Your task to perform on an android device: remove spam from my inbox in the gmail app Image 0: 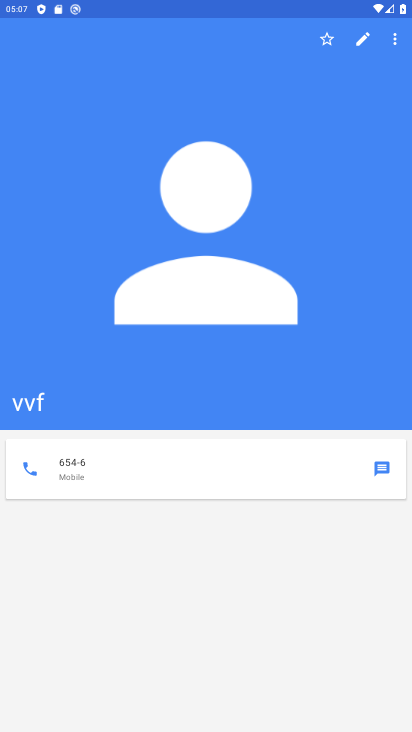
Step 0: press back button
Your task to perform on an android device: remove spam from my inbox in the gmail app Image 1: 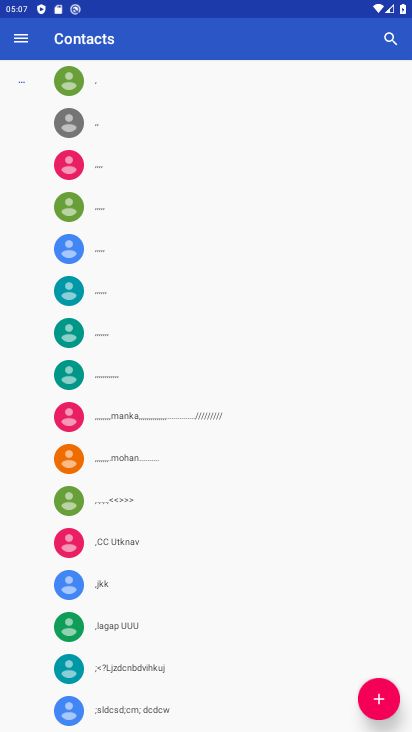
Step 1: press back button
Your task to perform on an android device: remove spam from my inbox in the gmail app Image 2: 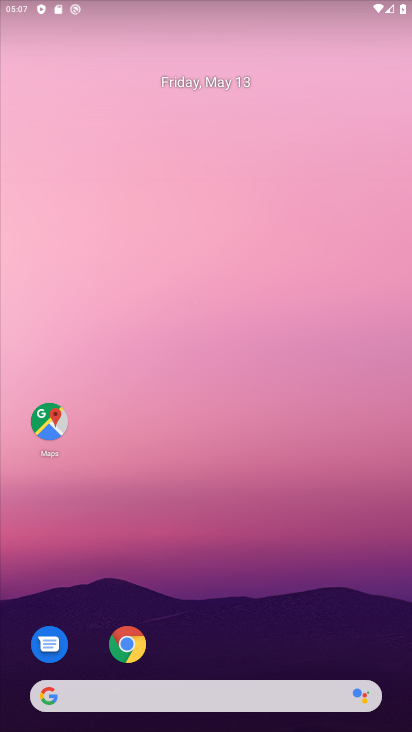
Step 2: drag from (252, 594) to (307, 21)
Your task to perform on an android device: remove spam from my inbox in the gmail app Image 3: 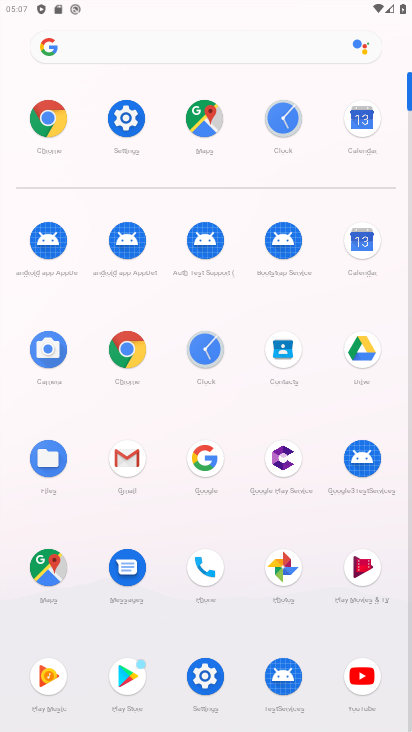
Step 3: click (118, 459)
Your task to perform on an android device: remove spam from my inbox in the gmail app Image 4: 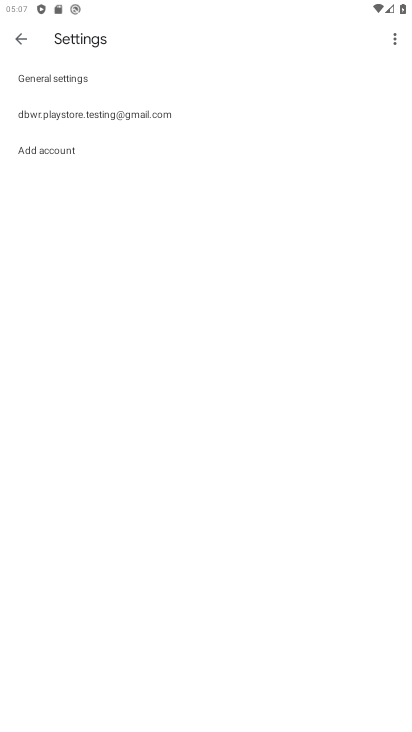
Step 4: click (16, 34)
Your task to perform on an android device: remove spam from my inbox in the gmail app Image 5: 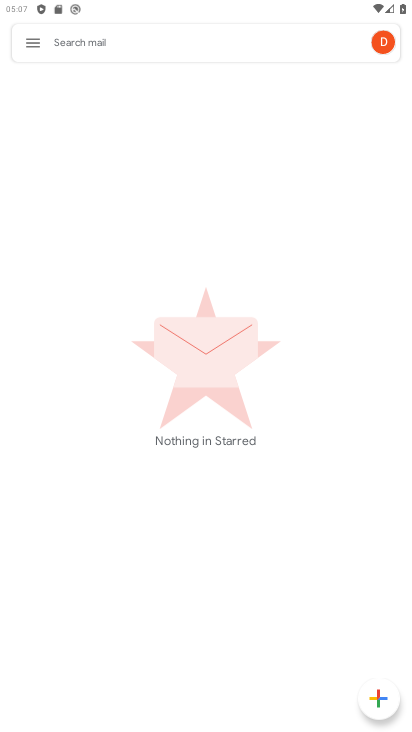
Step 5: click (40, 50)
Your task to perform on an android device: remove spam from my inbox in the gmail app Image 6: 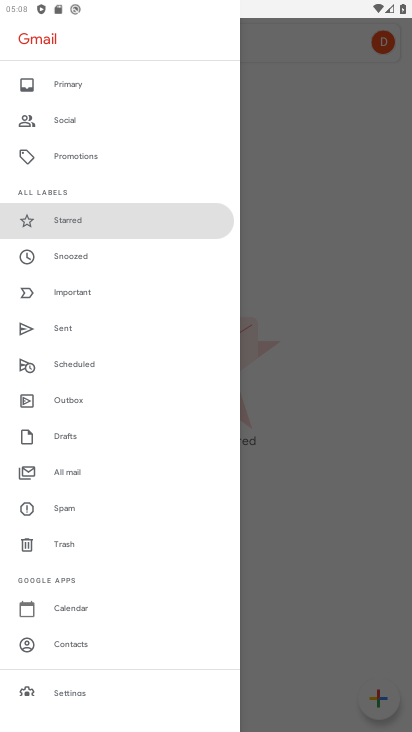
Step 6: click (75, 497)
Your task to perform on an android device: remove spam from my inbox in the gmail app Image 7: 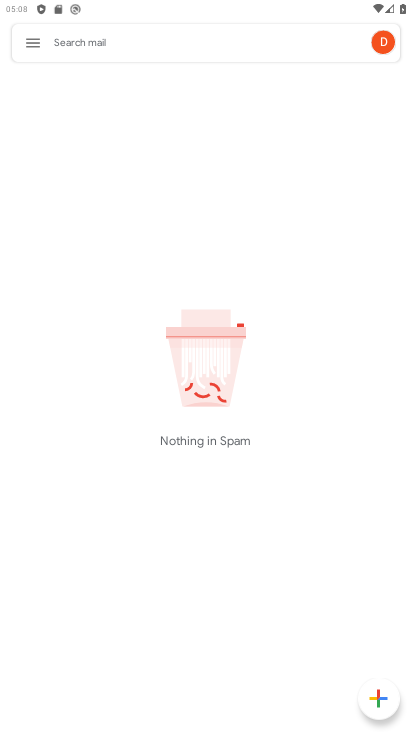
Step 7: task complete